Your task to perform on an android device: set an alarm Image 0: 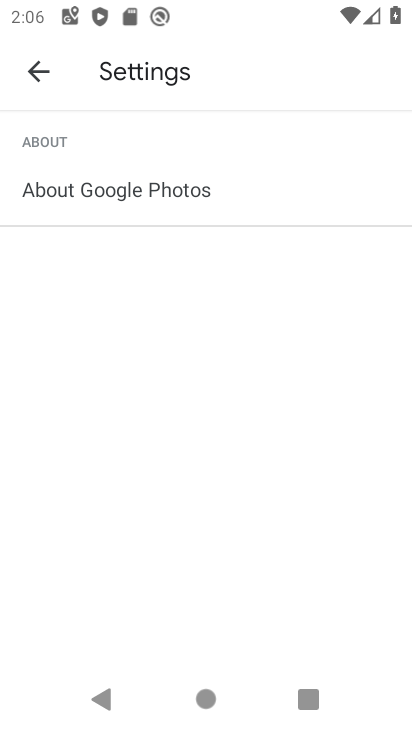
Step 0: press home button
Your task to perform on an android device: set an alarm Image 1: 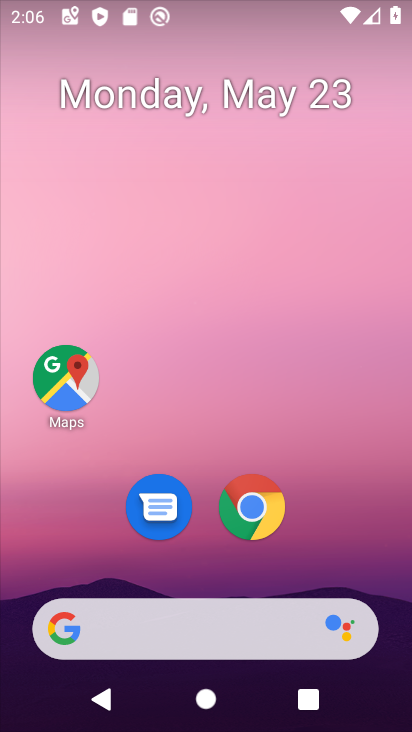
Step 1: drag from (248, 725) to (243, 234)
Your task to perform on an android device: set an alarm Image 2: 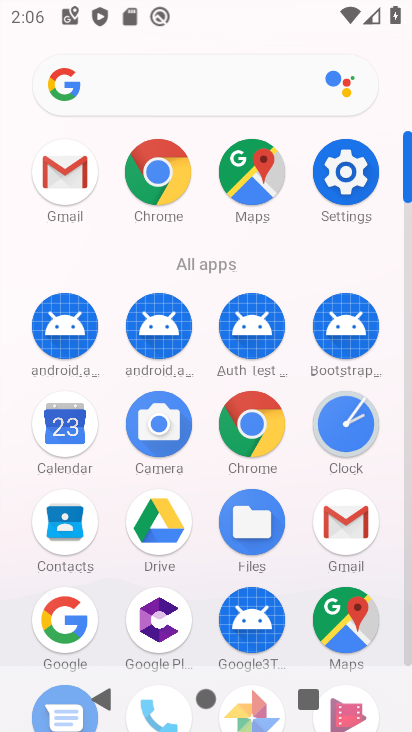
Step 2: click (359, 421)
Your task to perform on an android device: set an alarm Image 3: 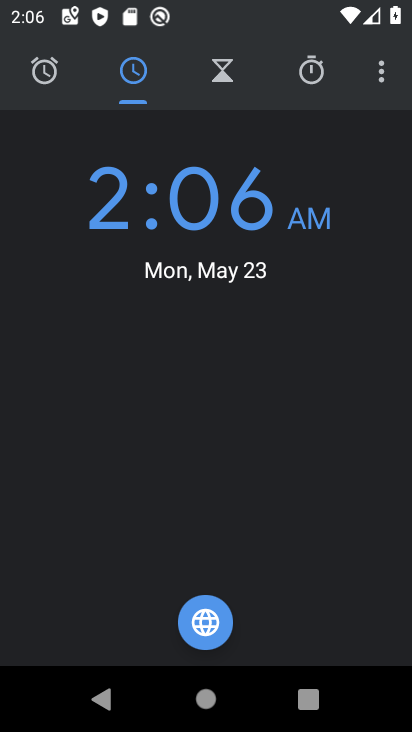
Step 3: click (49, 69)
Your task to perform on an android device: set an alarm Image 4: 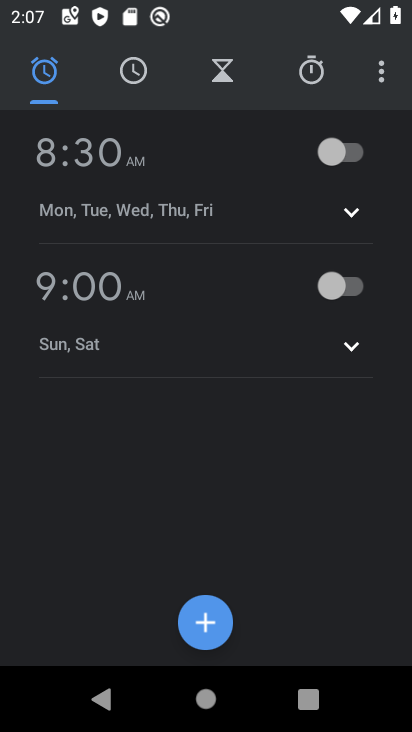
Step 4: click (207, 617)
Your task to perform on an android device: set an alarm Image 5: 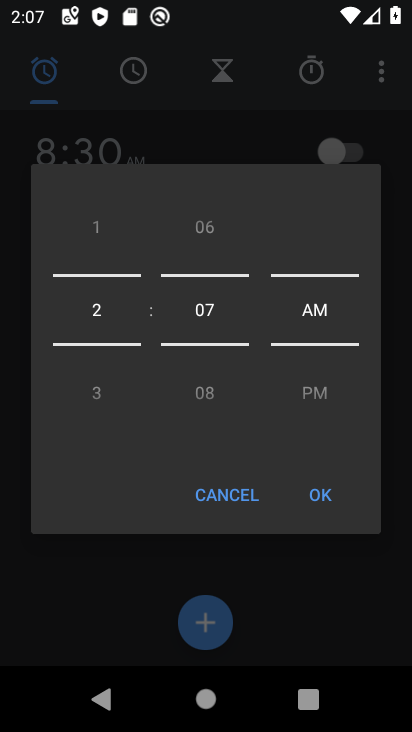
Step 5: drag from (311, 397) to (320, 98)
Your task to perform on an android device: set an alarm Image 6: 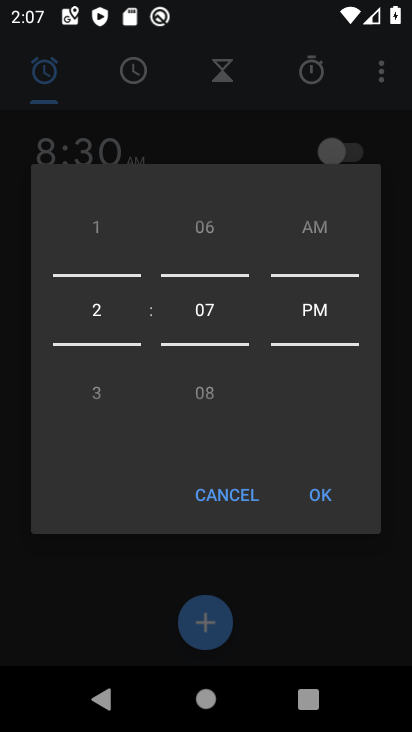
Step 6: drag from (100, 229) to (121, 523)
Your task to perform on an android device: set an alarm Image 7: 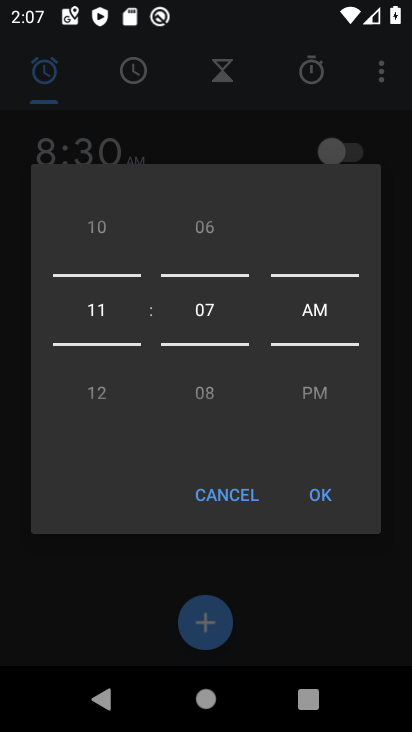
Step 7: click (319, 491)
Your task to perform on an android device: set an alarm Image 8: 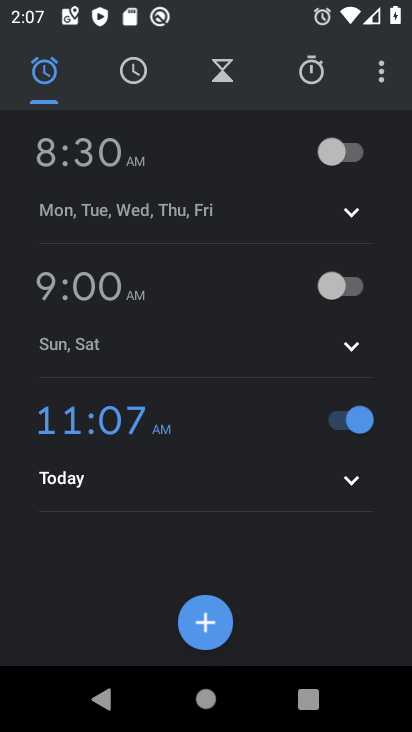
Step 8: task complete